Your task to perform on an android device: turn on sleep mode Image 0: 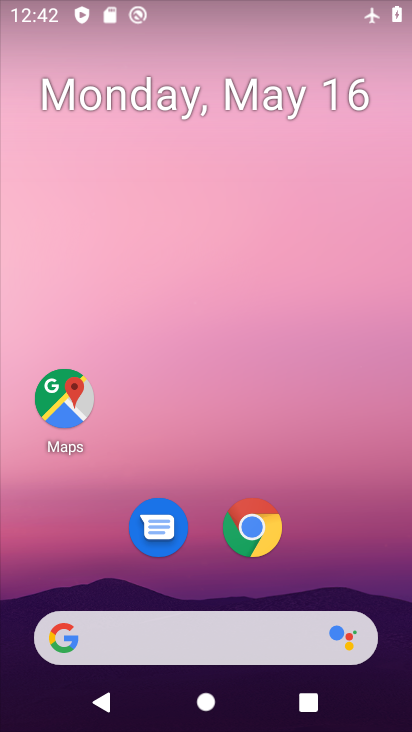
Step 0: click (182, 565)
Your task to perform on an android device: turn on sleep mode Image 1: 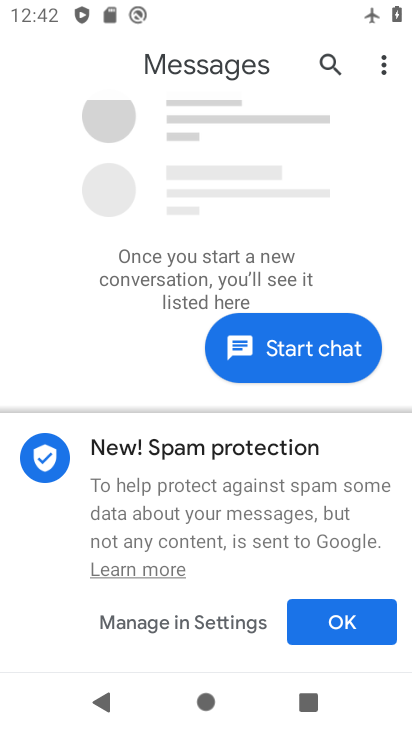
Step 1: drag from (222, 583) to (286, 330)
Your task to perform on an android device: turn on sleep mode Image 2: 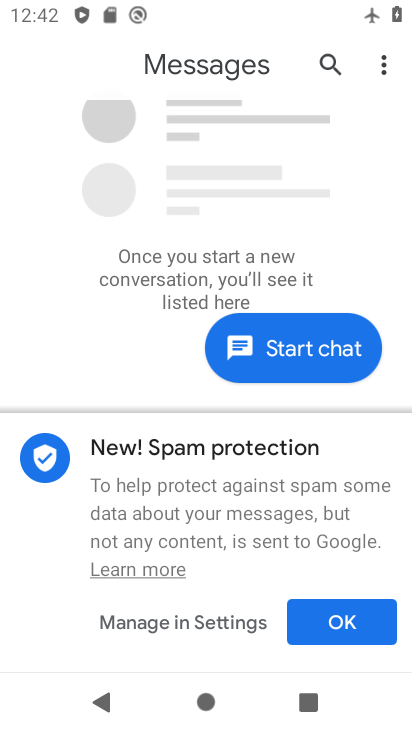
Step 2: press home button
Your task to perform on an android device: turn on sleep mode Image 3: 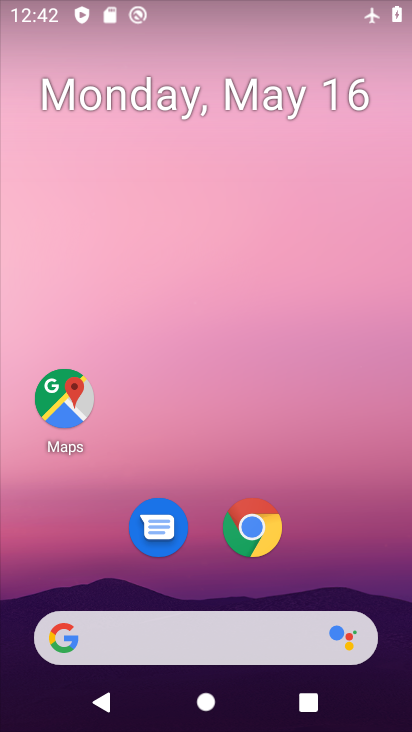
Step 3: drag from (210, 580) to (261, 183)
Your task to perform on an android device: turn on sleep mode Image 4: 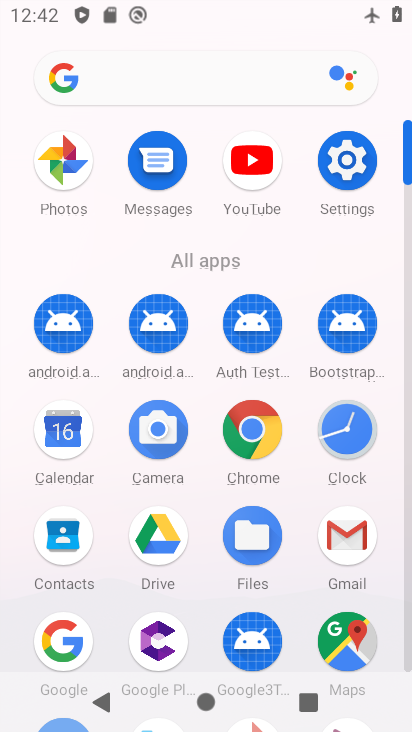
Step 4: click (354, 163)
Your task to perform on an android device: turn on sleep mode Image 5: 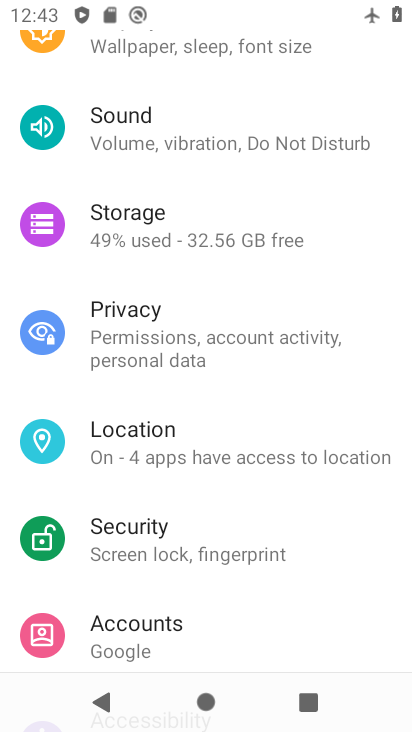
Step 5: click (223, 52)
Your task to perform on an android device: turn on sleep mode Image 6: 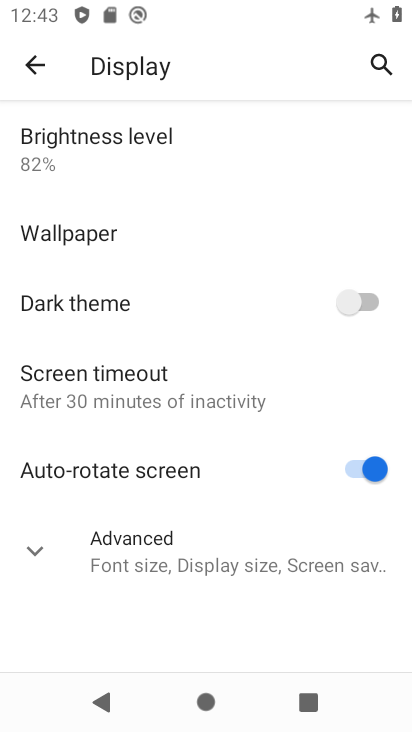
Step 6: task complete